Your task to perform on an android device: Toggle the flashlight Image 0: 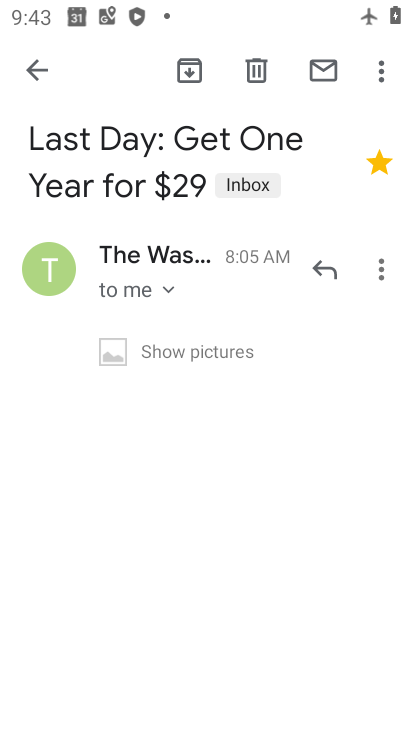
Step 0: press home button
Your task to perform on an android device: Toggle the flashlight Image 1: 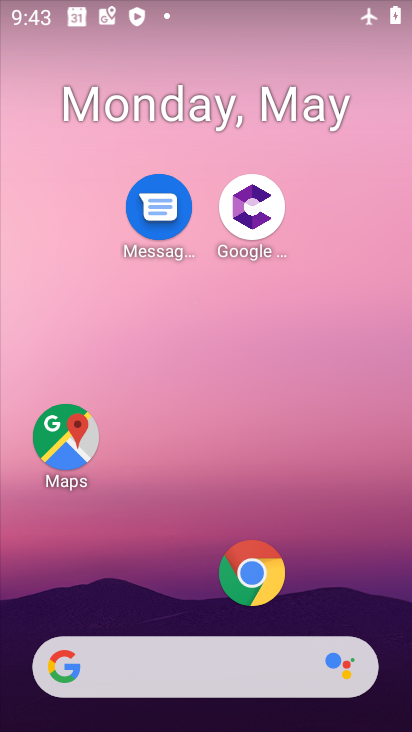
Step 1: task complete